Your task to perform on an android device: What's on my calendar today? Image 0: 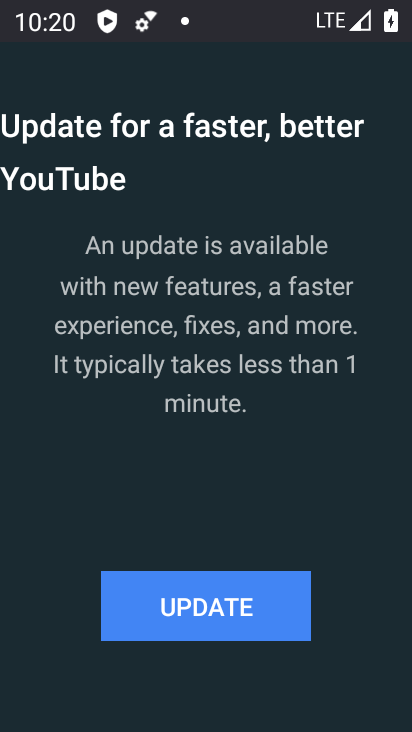
Step 0: click (374, 441)
Your task to perform on an android device: What's on my calendar today? Image 1: 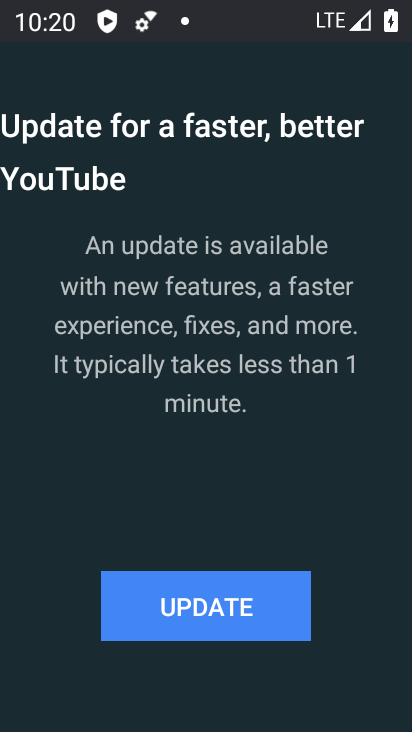
Step 1: press home button
Your task to perform on an android device: What's on my calendar today? Image 2: 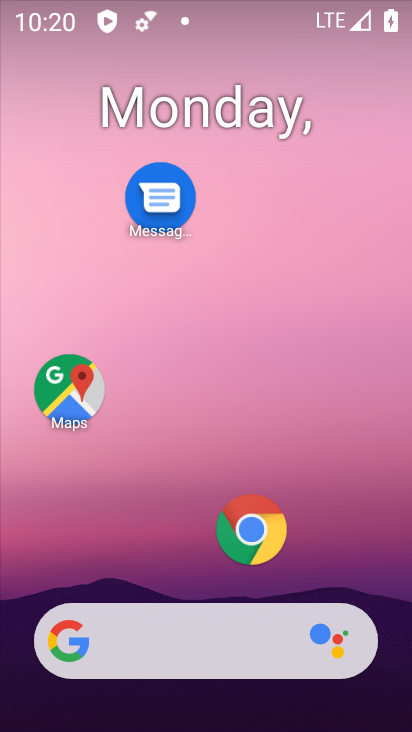
Step 2: drag from (353, 491) to (327, 120)
Your task to perform on an android device: What's on my calendar today? Image 3: 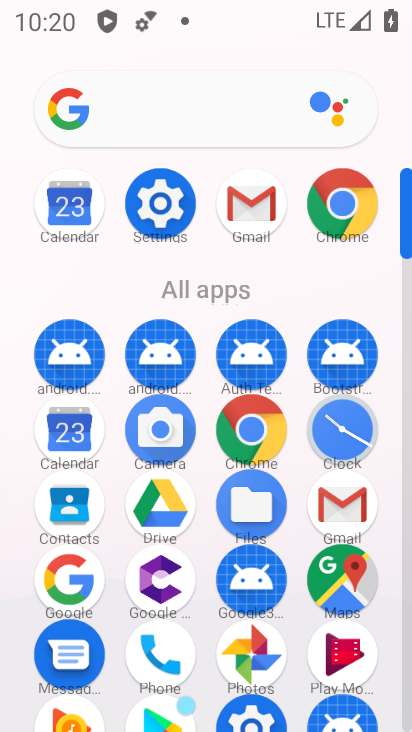
Step 3: click (77, 444)
Your task to perform on an android device: What's on my calendar today? Image 4: 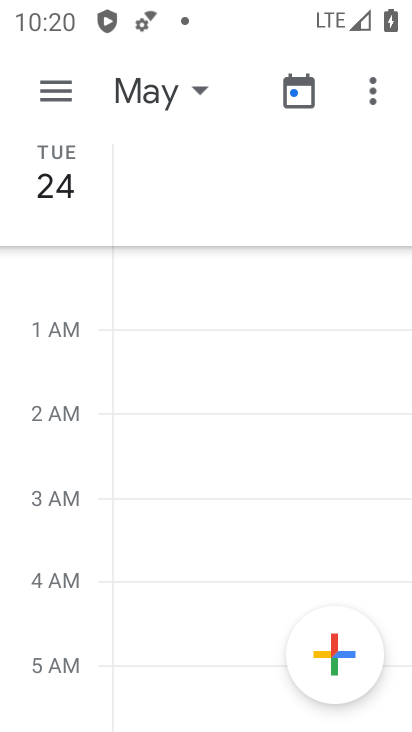
Step 4: task complete